Your task to perform on an android device: Open eBay Image 0: 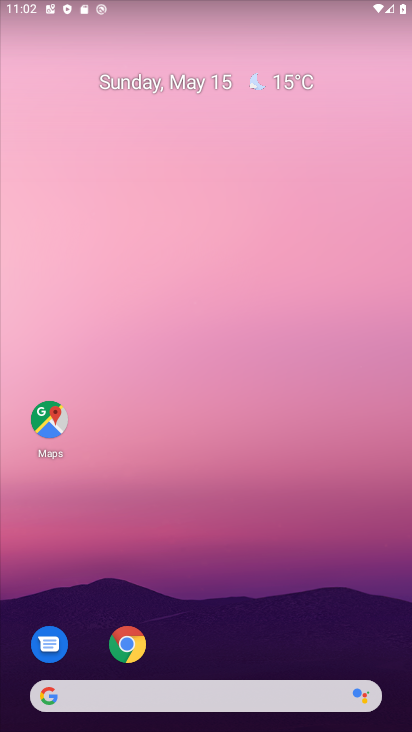
Step 0: click (139, 643)
Your task to perform on an android device: Open eBay Image 1: 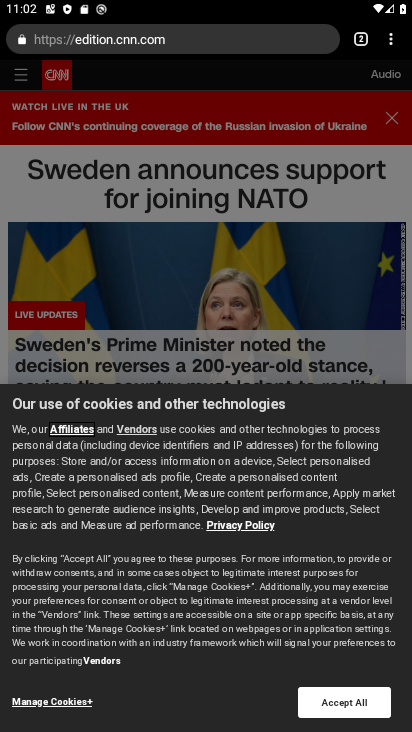
Step 1: click (358, 41)
Your task to perform on an android device: Open eBay Image 2: 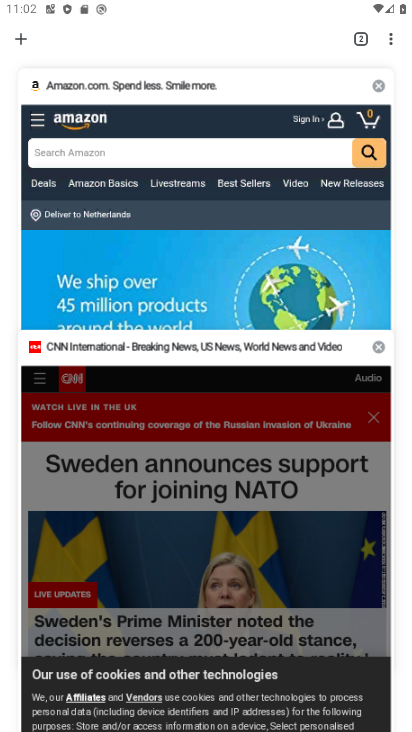
Step 2: click (24, 39)
Your task to perform on an android device: Open eBay Image 3: 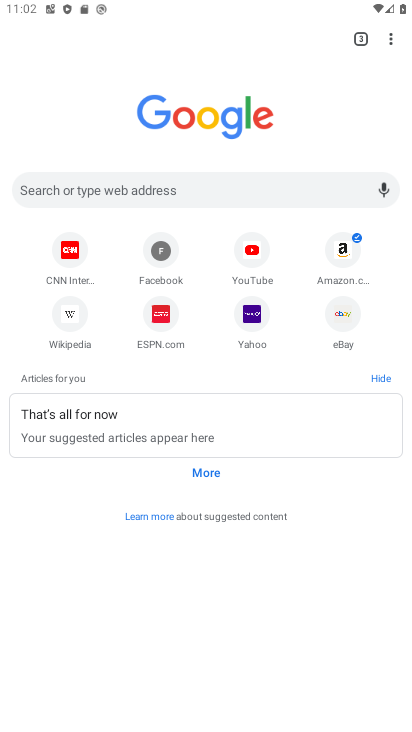
Step 3: click (344, 315)
Your task to perform on an android device: Open eBay Image 4: 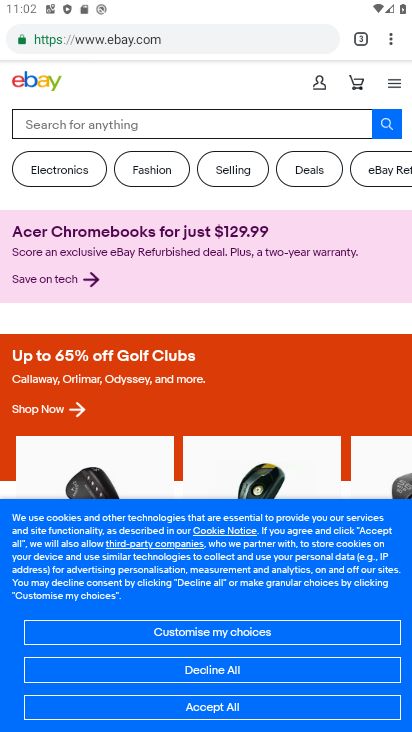
Step 4: task complete